Your task to perform on an android device: turn pop-ups off in chrome Image 0: 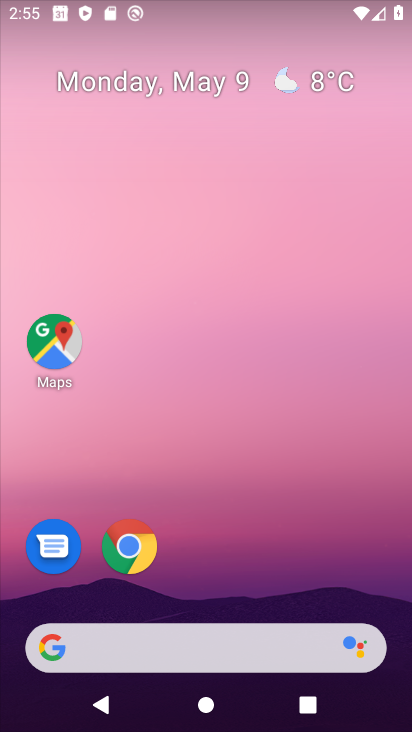
Step 0: click (121, 541)
Your task to perform on an android device: turn pop-ups off in chrome Image 1: 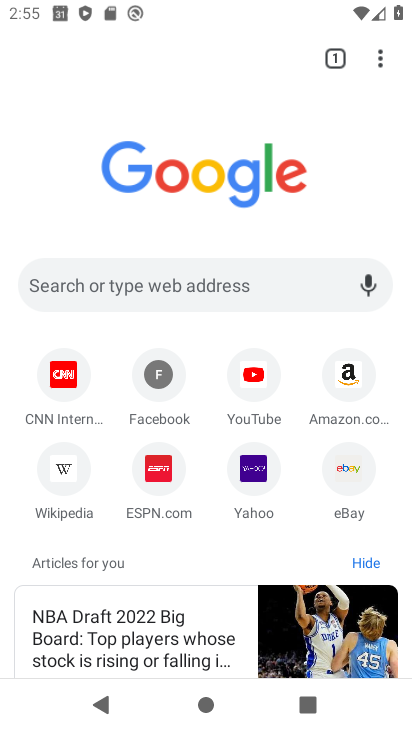
Step 1: click (381, 56)
Your task to perform on an android device: turn pop-ups off in chrome Image 2: 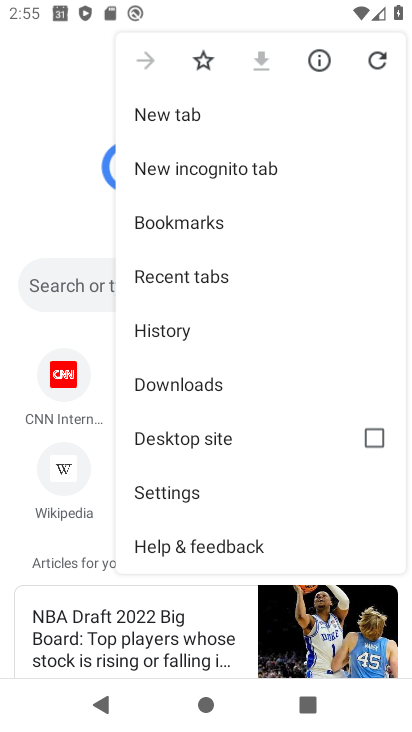
Step 2: click (259, 495)
Your task to perform on an android device: turn pop-ups off in chrome Image 3: 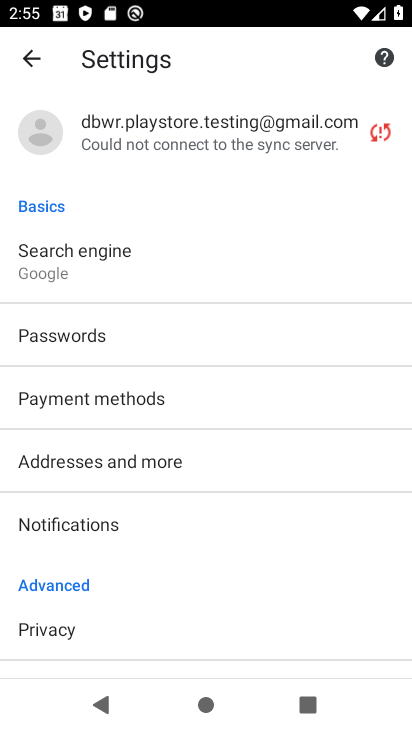
Step 3: drag from (259, 495) to (254, 373)
Your task to perform on an android device: turn pop-ups off in chrome Image 4: 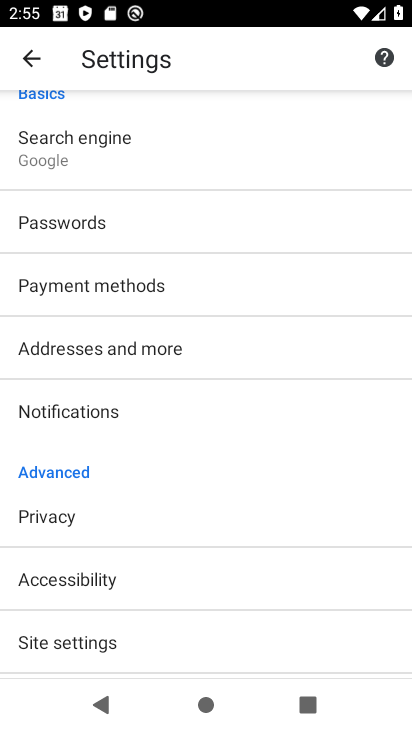
Step 4: click (125, 639)
Your task to perform on an android device: turn pop-ups off in chrome Image 5: 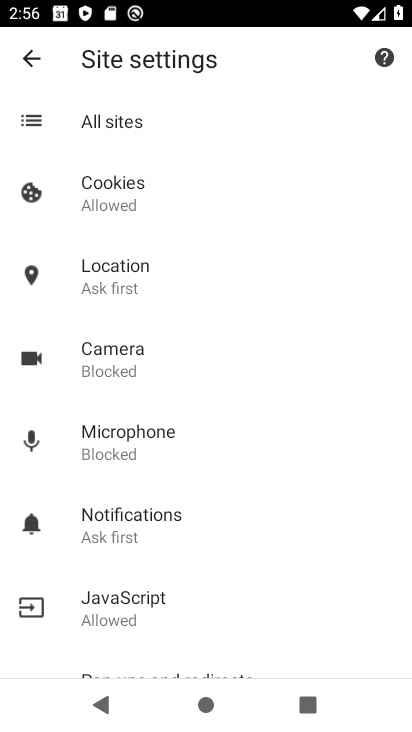
Step 5: drag from (380, 543) to (380, 293)
Your task to perform on an android device: turn pop-ups off in chrome Image 6: 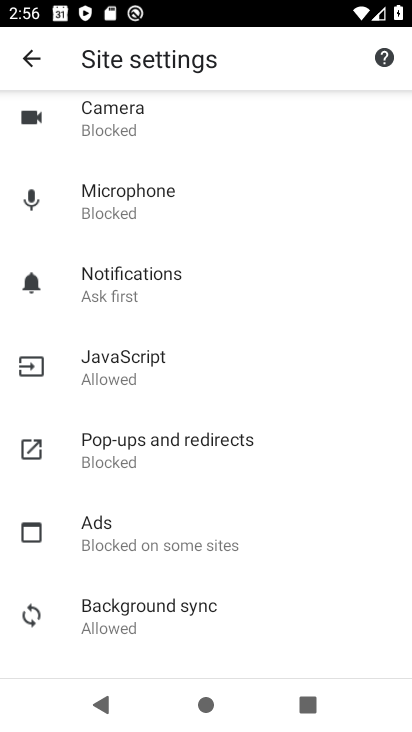
Step 6: click (199, 459)
Your task to perform on an android device: turn pop-ups off in chrome Image 7: 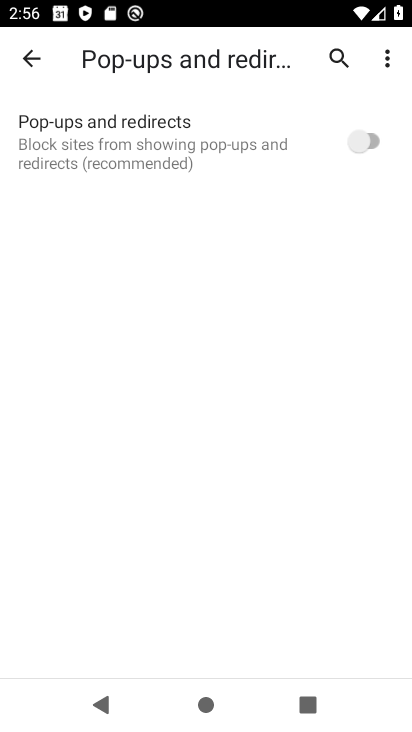
Step 7: task complete